Your task to perform on an android device: star an email in the gmail app Image 0: 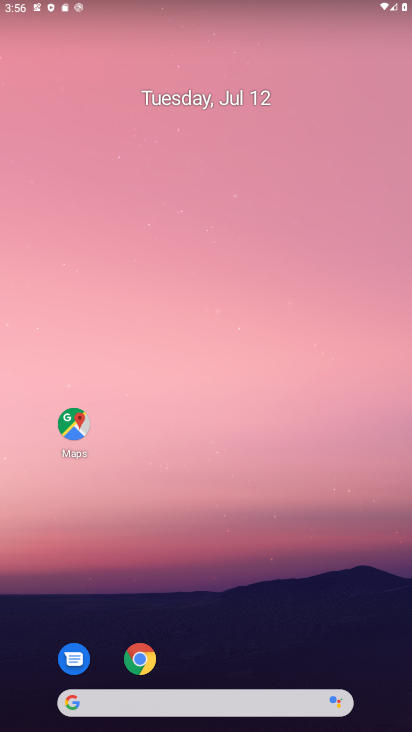
Step 0: drag from (230, 727) to (206, 207)
Your task to perform on an android device: star an email in the gmail app Image 1: 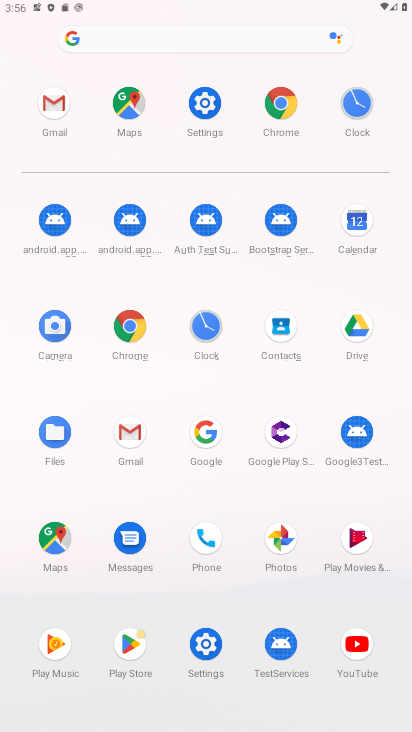
Step 1: click (134, 434)
Your task to perform on an android device: star an email in the gmail app Image 2: 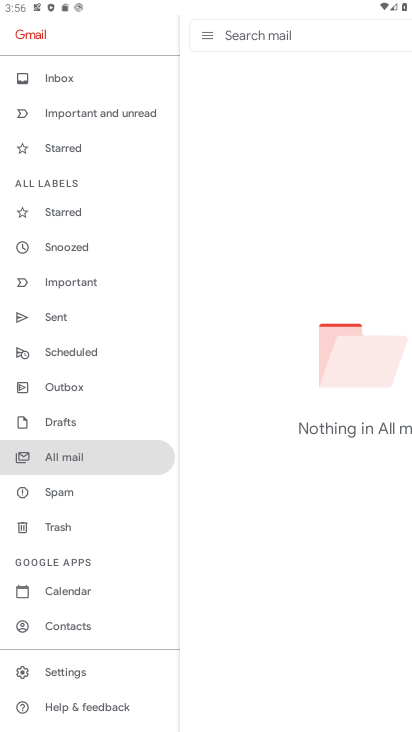
Step 2: click (57, 77)
Your task to perform on an android device: star an email in the gmail app Image 3: 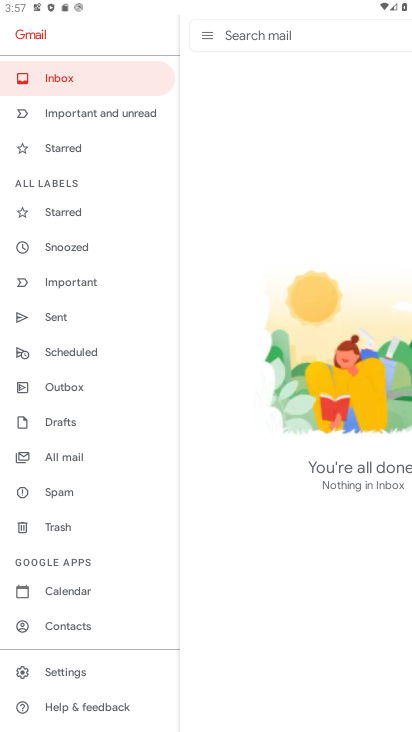
Step 3: task complete